Your task to perform on an android device: Open accessibility settings Image 0: 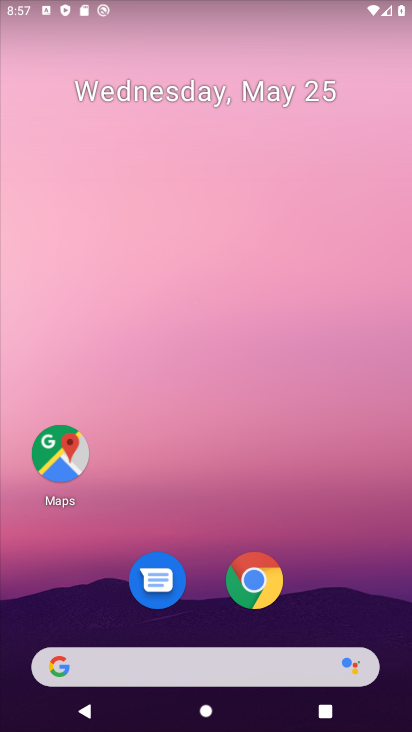
Step 0: press home button
Your task to perform on an android device: Open accessibility settings Image 1: 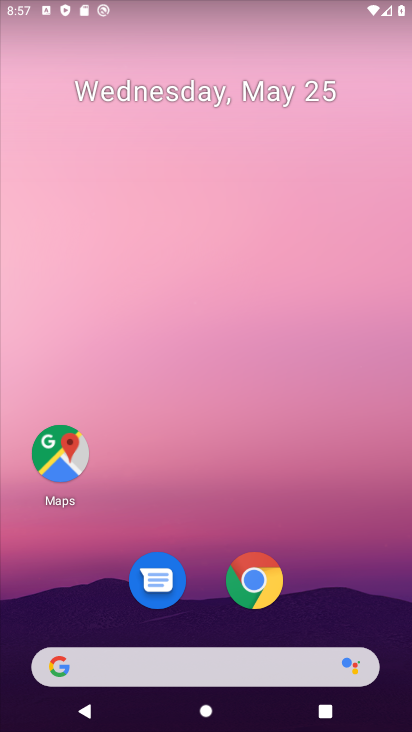
Step 1: drag from (42, 562) to (195, 204)
Your task to perform on an android device: Open accessibility settings Image 2: 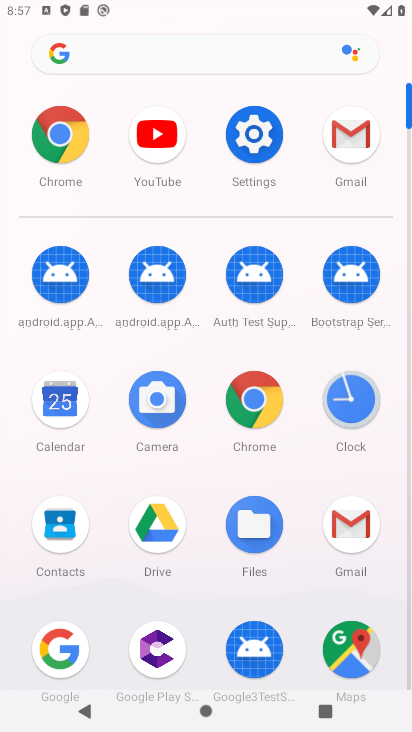
Step 2: click (263, 135)
Your task to perform on an android device: Open accessibility settings Image 3: 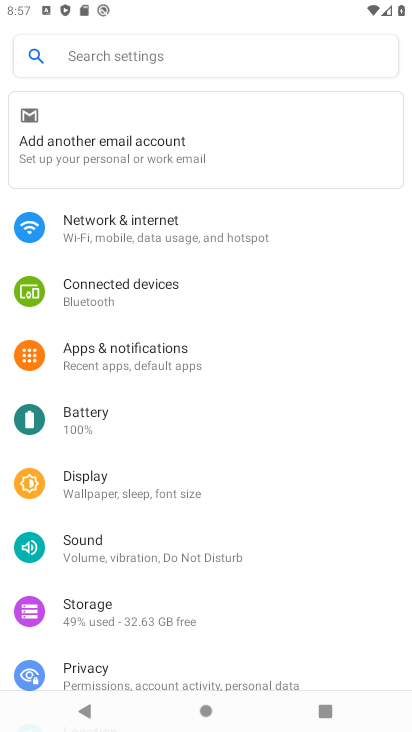
Step 3: drag from (29, 585) to (198, 213)
Your task to perform on an android device: Open accessibility settings Image 4: 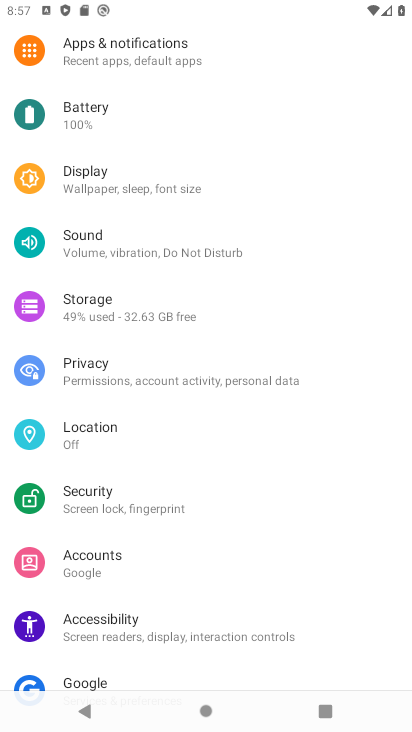
Step 4: click (95, 622)
Your task to perform on an android device: Open accessibility settings Image 5: 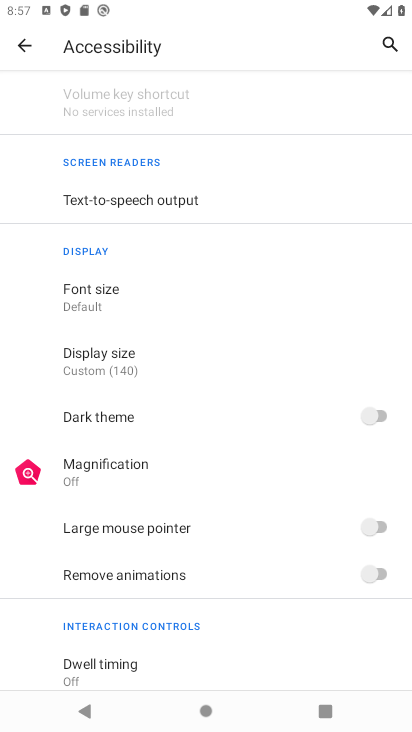
Step 5: task complete